Your task to perform on an android device: Search for Mexican restaurants on Maps Image 0: 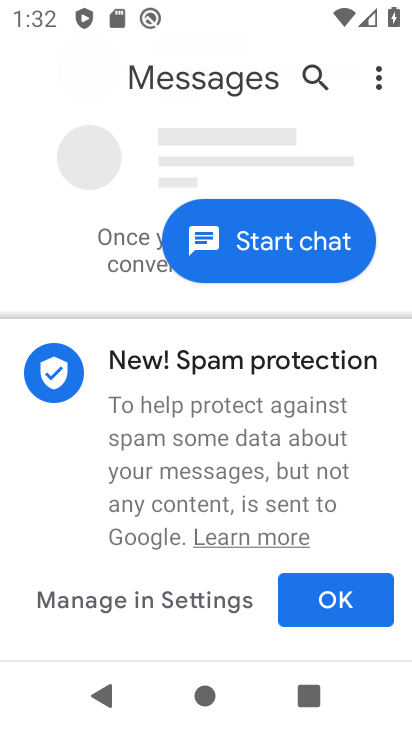
Step 0: press home button
Your task to perform on an android device: Search for Mexican restaurants on Maps Image 1: 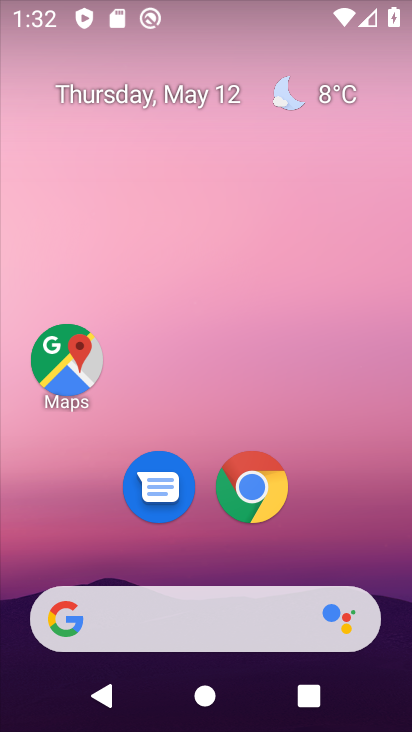
Step 1: click (55, 356)
Your task to perform on an android device: Search for Mexican restaurants on Maps Image 2: 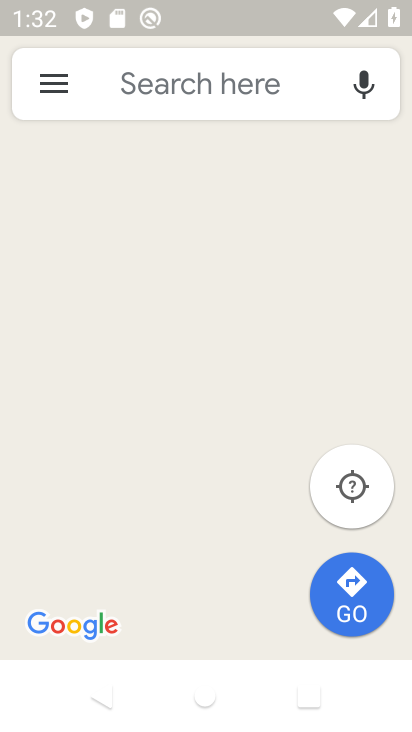
Step 2: click (197, 98)
Your task to perform on an android device: Search for Mexican restaurants on Maps Image 3: 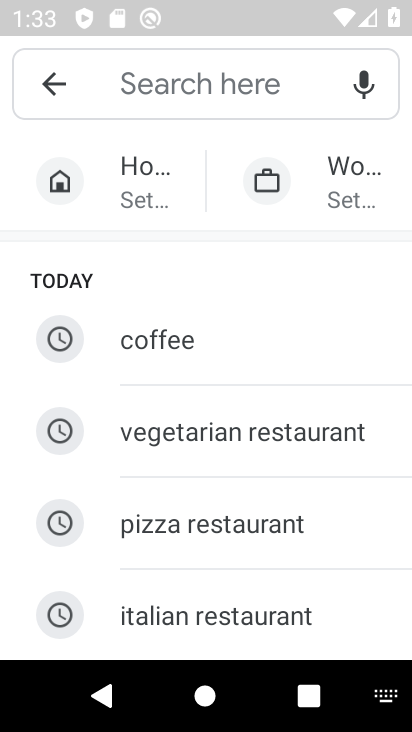
Step 3: type "mexican restaurant"
Your task to perform on an android device: Search for Mexican restaurants on Maps Image 4: 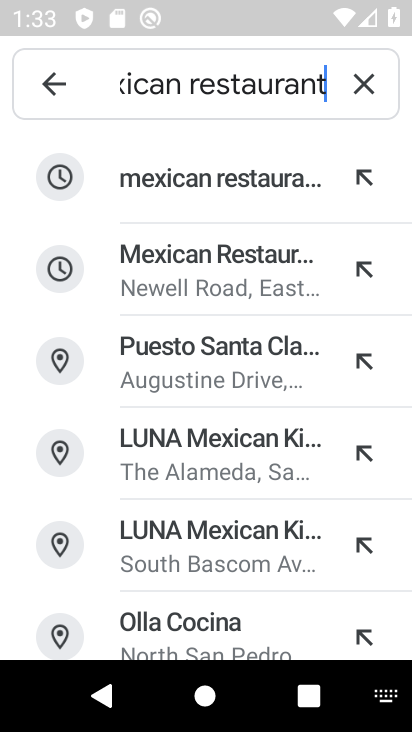
Step 4: click (255, 182)
Your task to perform on an android device: Search for Mexican restaurants on Maps Image 5: 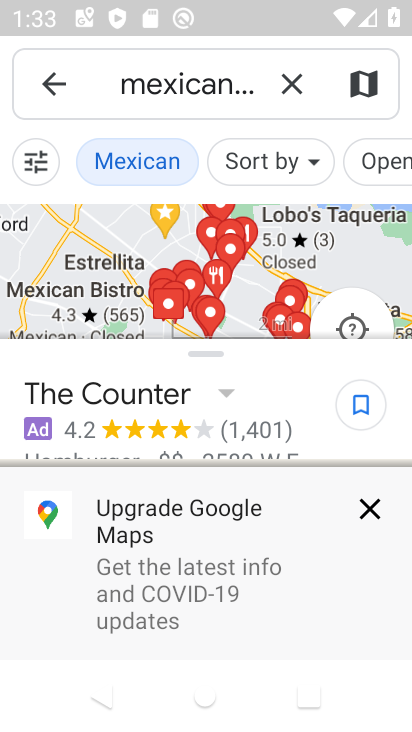
Step 5: click (359, 503)
Your task to perform on an android device: Search for Mexican restaurants on Maps Image 6: 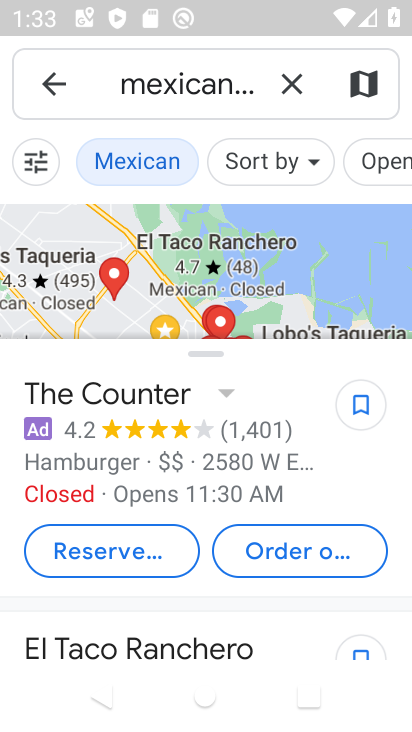
Step 6: task complete